Your task to perform on an android device: turn on translation in the chrome app Image 0: 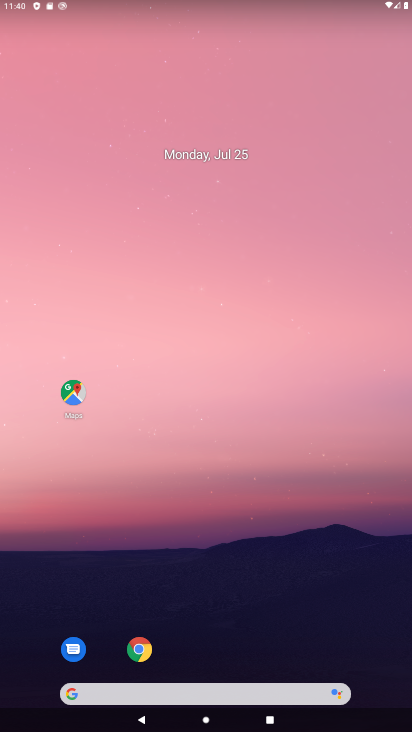
Step 0: drag from (207, 673) to (167, 27)
Your task to perform on an android device: turn on translation in the chrome app Image 1: 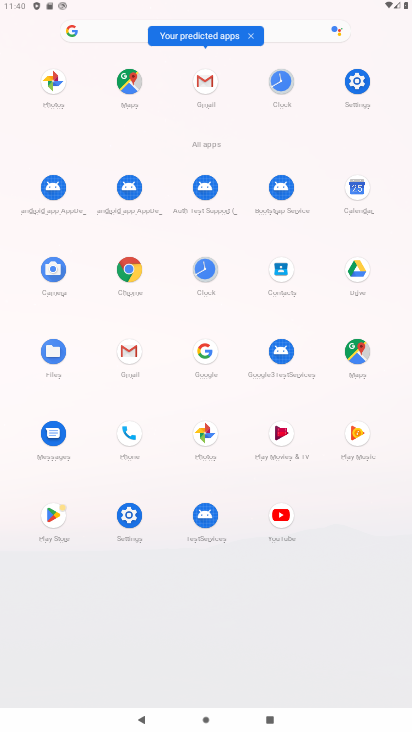
Step 1: click (136, 266)
Your task to perform on an android device: turn on translation in the chrome app Image 2: 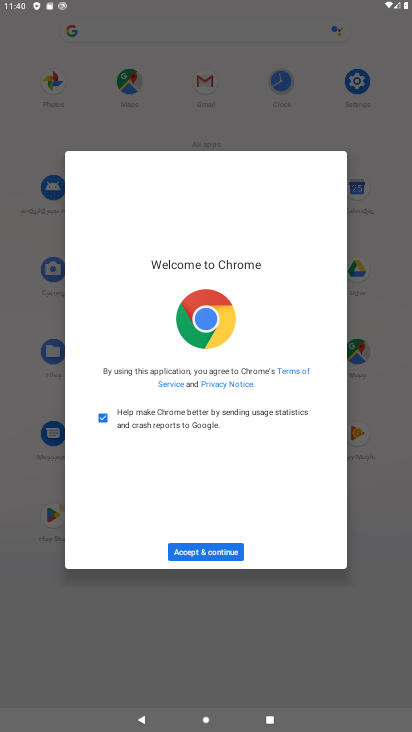
Step 2: click (196, 546)
Your task to perform on an android device: turn on translation in the chrome app Image 3: 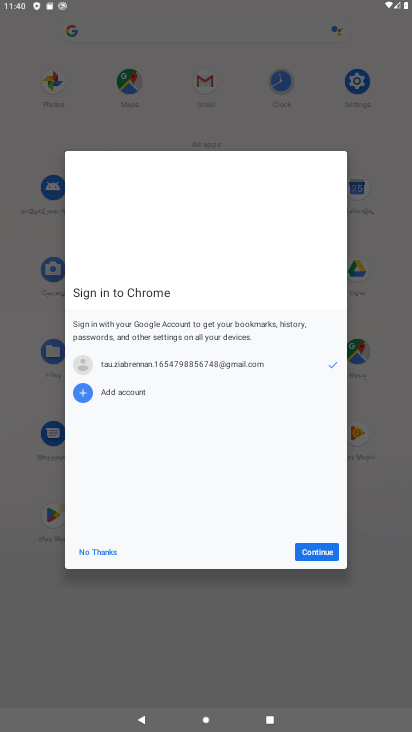
Step 3: click (318, 551)
Your task to perform on an android device: turn on translation in the chrome app Image 4: 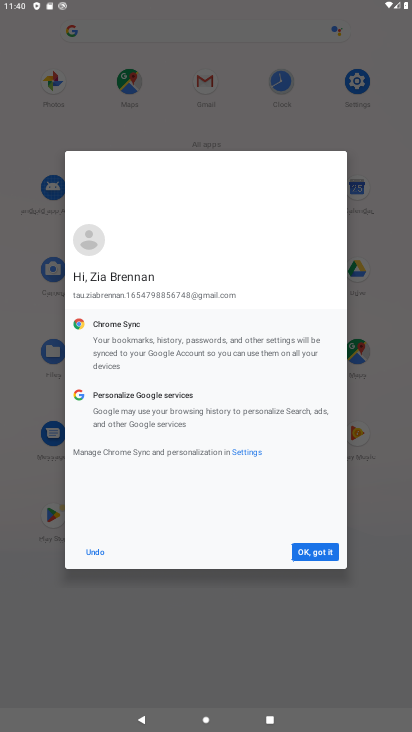
Step 4: click (317, 549)
Your task to perform on an android device: turn on translation in the chrome app Image 5: 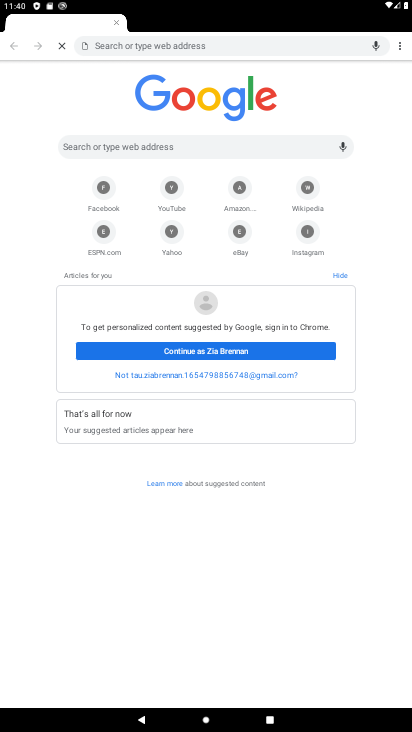
Step 5: drag from (402, 40) to (302, 205)
Your task to perform on an android device: turn on translation in the chrome app Image 6: 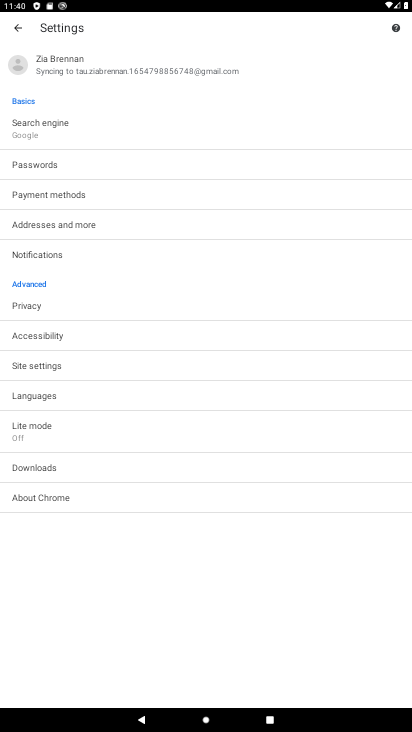
Step 6: click (33, 396)
Your task to perform on an android device: turn on translation in the chrome app Image 7: 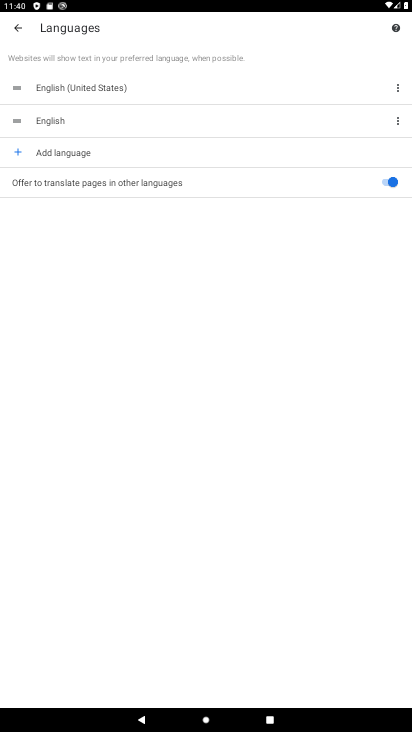
Step 7: task complete